Your task to perform on an android device: Search for pizza restaurants on Maps Image 0: 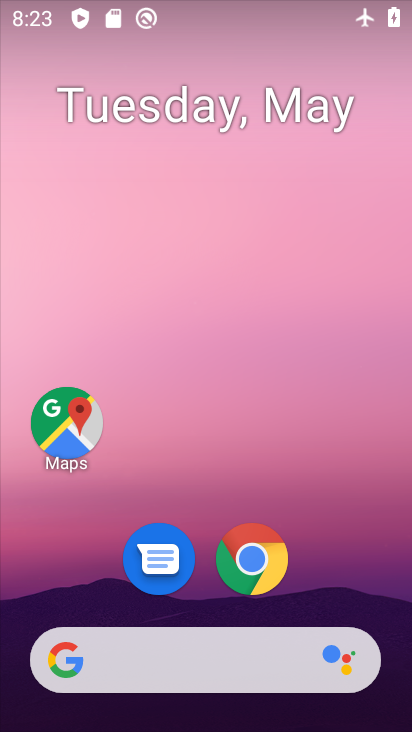
Step 0: click (81, 438)
Your task to perform on an android device: Search for pizza restaurants on Maps Image 1: 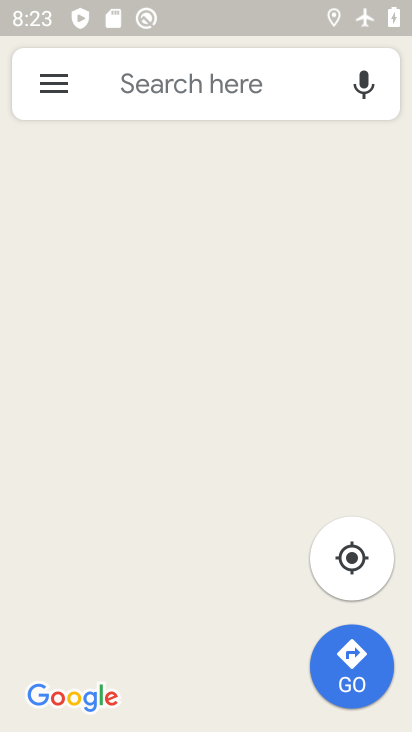
Step 1: click (193, 87)
Your task to perform on an android device: Search for pizza restaurants on Maps Image 2: 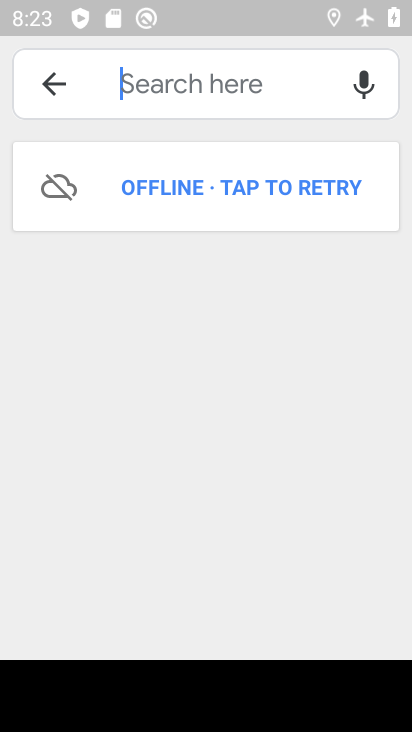
Step 2: type "pizza restaurants"
Your task to perform on an android device: Search for pizza restaurants on Maps Image 3: 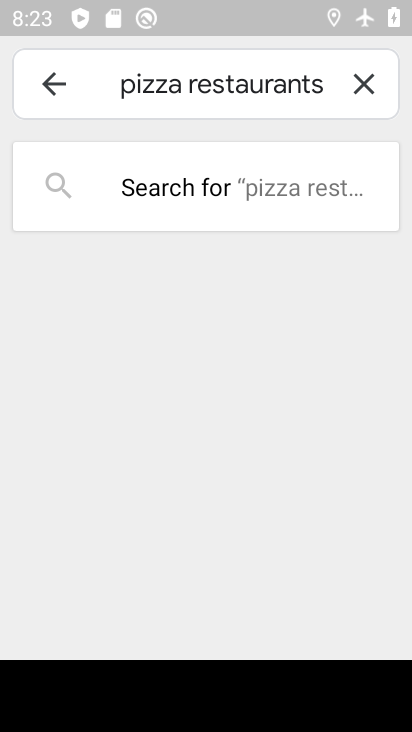
Step 3: task complete